Your task to perform on an android device: turn off improve location accuracy Image 0: 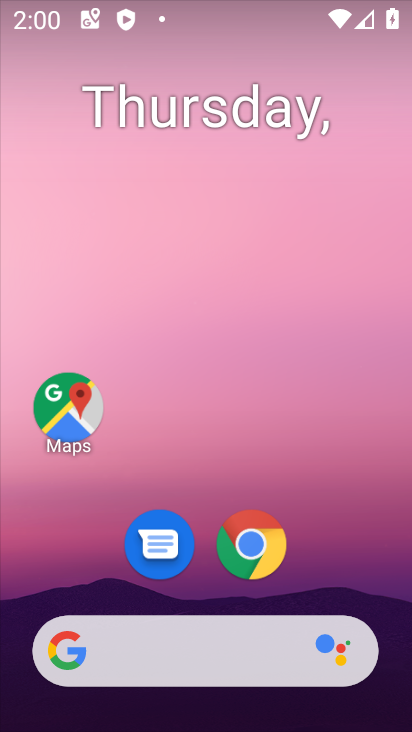
Step 0: drag from (308, 340) to (295, 112)
Your task to perform on an android device: turn off improve location accuracy Image 1: 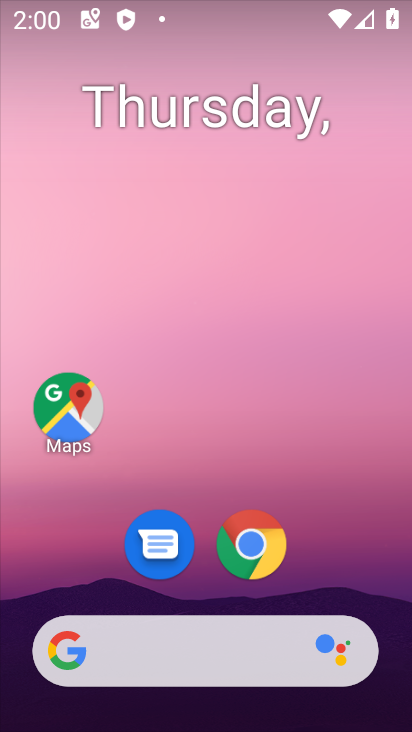
Step 1: drag from (310, 565) to (271, 86)
Your task to perform on an android device: turn off improve location accuracy Image 2: 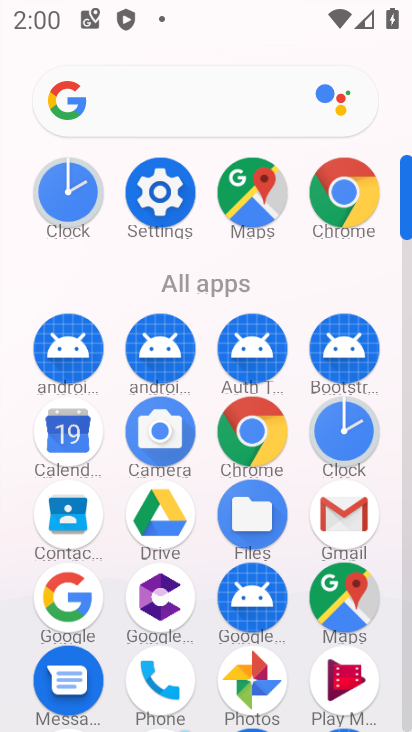
Step 2: click (180, 274)
Your task to perform on an android device: turn off improve location accuracy Image 3: 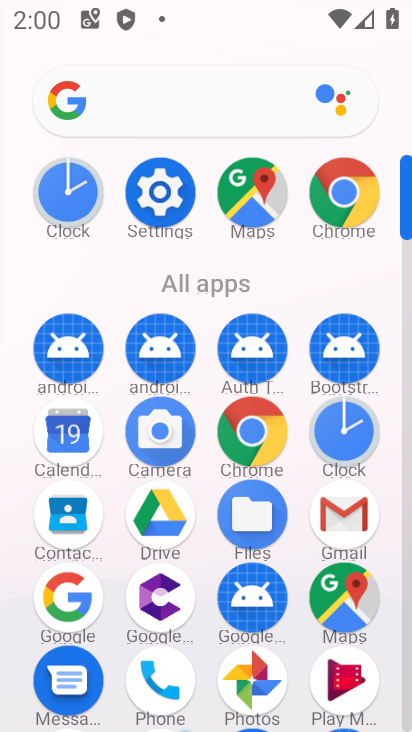
Step 3: click (163, 200)
Your task to perform on an android device: turn off improve location accuracy Image 4: 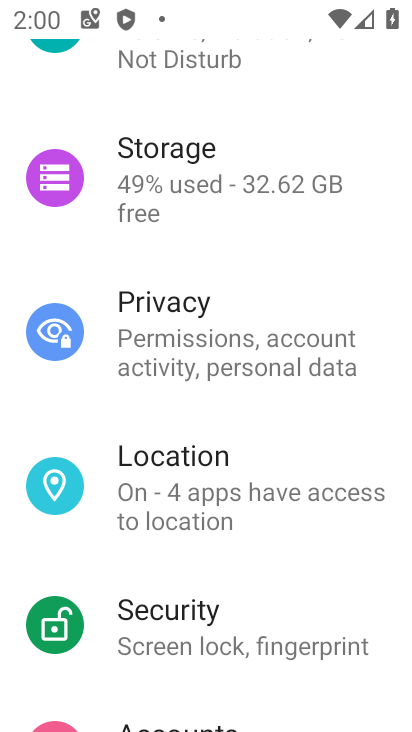
Step 4: drag from (293, 332) to (293, 252)
Your task to perform on an android device: turn off improve location accuracy Image 5: 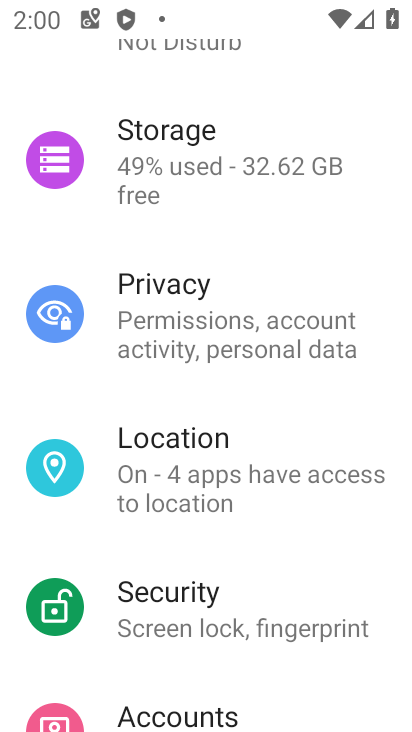
Step 5: click (274, 447)
Your task to perform on an android device: turn off improve location accuracy Image 6: 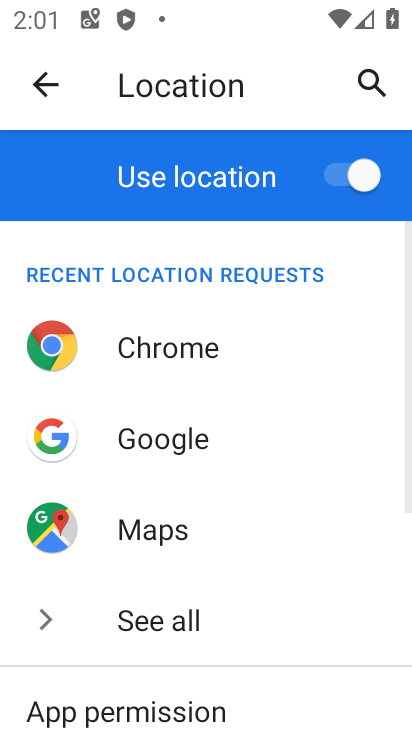
Step 6: drag from (244, 639) to (260, 166)
Your task to perform on an android device: turn off improve location accuracy Image 7: 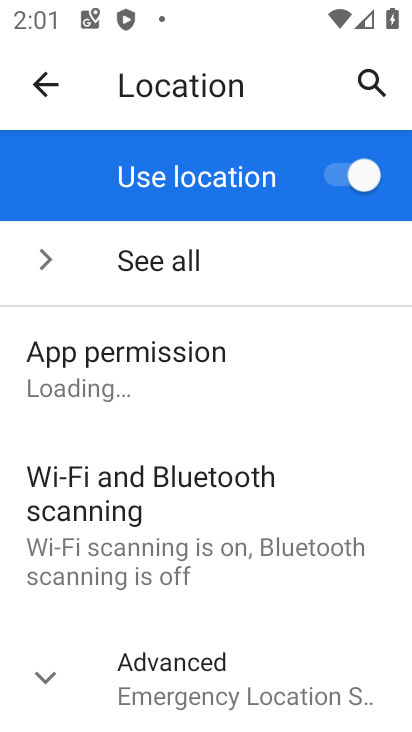
Step 7: click (224, 680)
Your task to perform on an android device: turn off improve location accuracy Image 8: 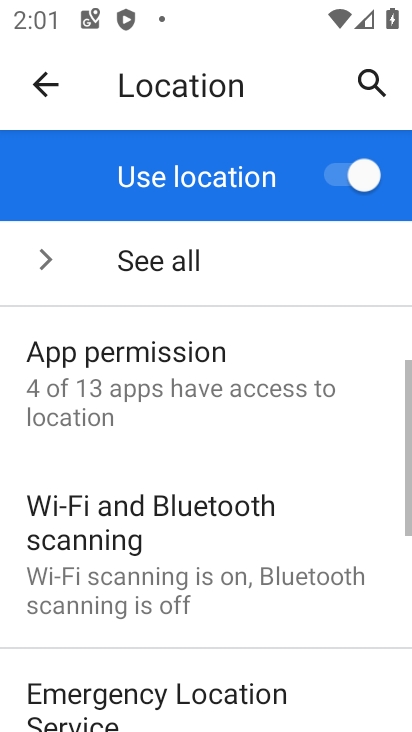
Step 8: drag from (289, 599) to (271, 152)
Your task to perform on an android device: turn off improve location accuracy Image 9: 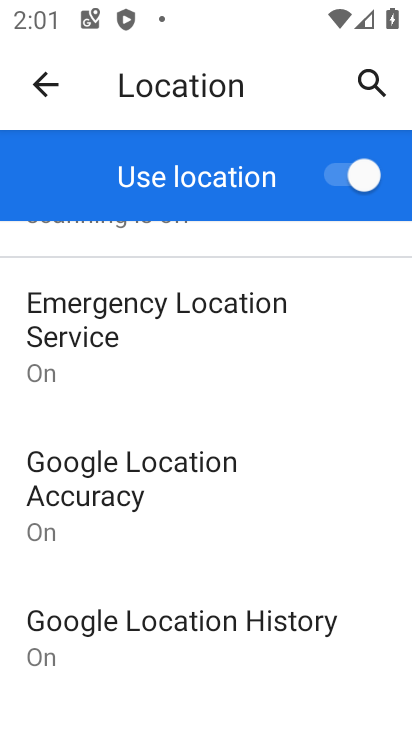
Step 9: drag from (218, 649) to (239, 228)
Your task to perform on an android device: turn off improve location accuracy Image 10: 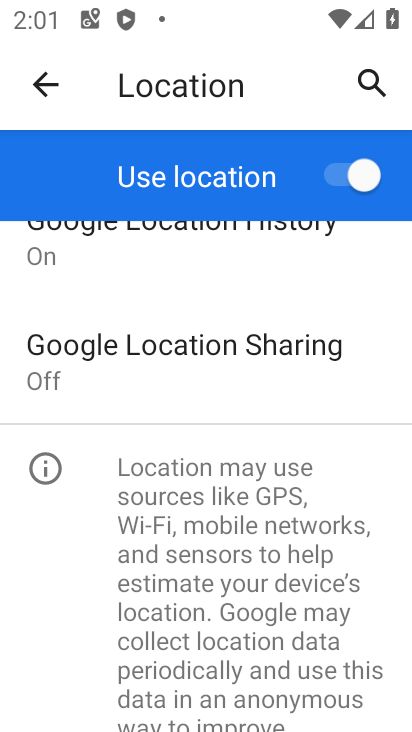
Step 10: drag from (269, 298) to (258, 501)
Your task to perform on an android device: turn off improve location accuracy Image 11: 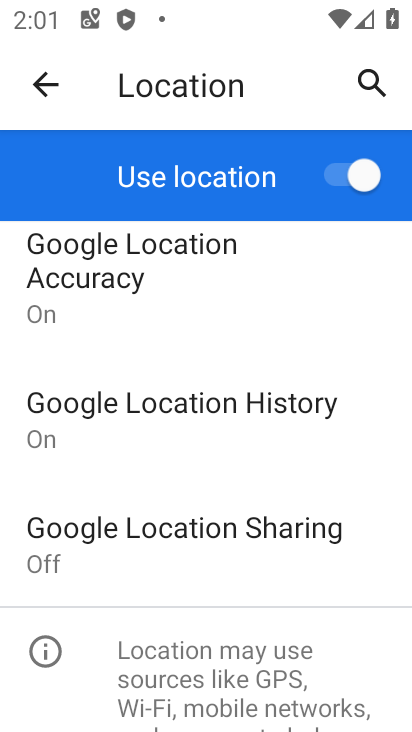
Step 11: click (252, 262)
Your task to perform on an android device: turn off improve location accuracy Image 12: 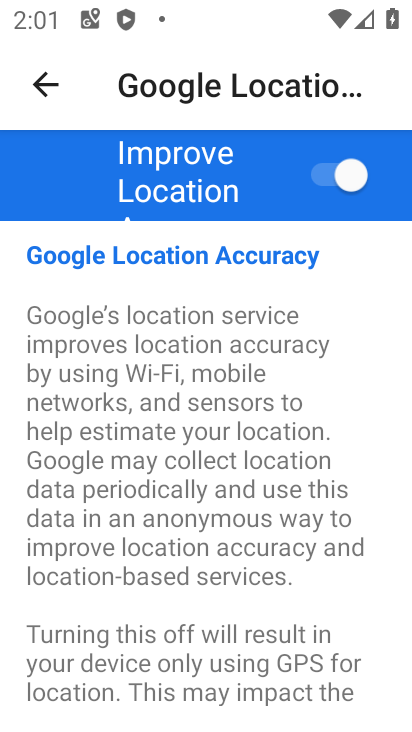
Step 12: click (355, 185)
Your task to perform on an android device: turn off improve location accuracy Image 13: 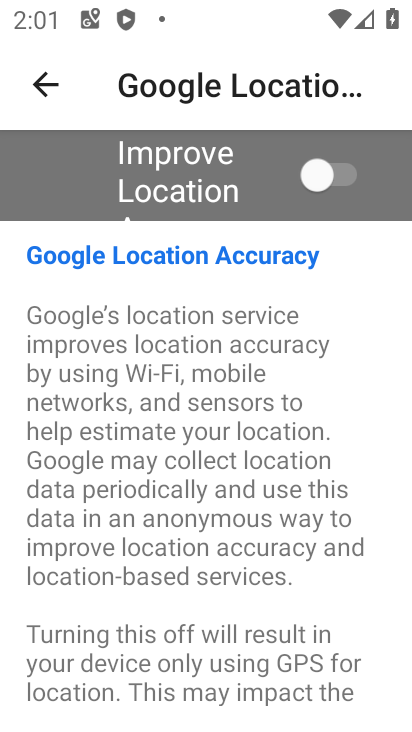
Step 13: task complete